Your task to perform on an android device: Open Chrome and go to settings Image 0: 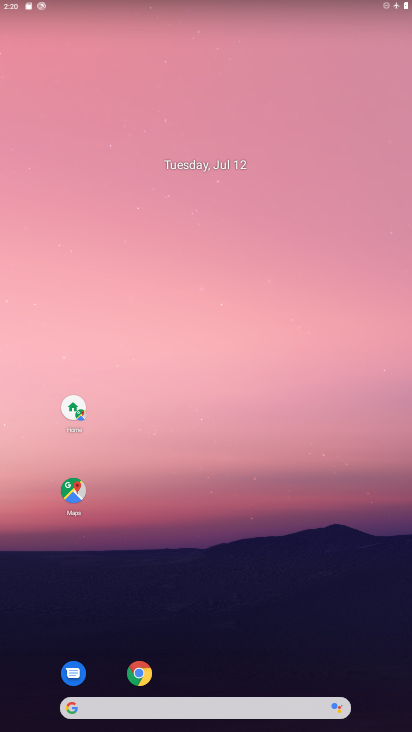
Step 0: drag from (216, 639) to (221, 387)
Your task to perform on an android device: Open Chrome and go to settings Image 1: 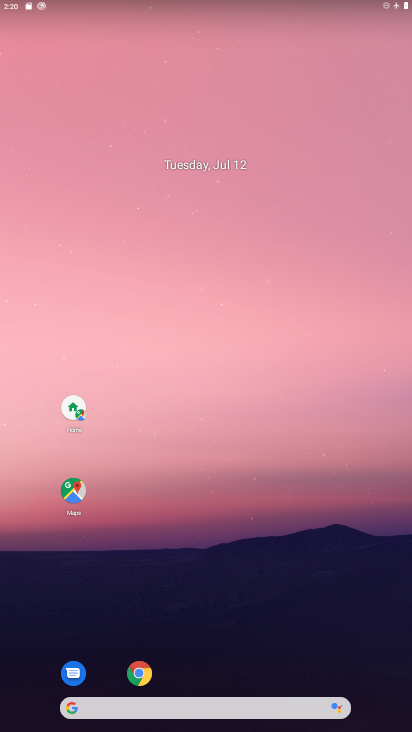
Step 1: drag from (210, 654) to (248, 245)
Your task to perform on an android device: Open Chrome and go to settings Image 2: 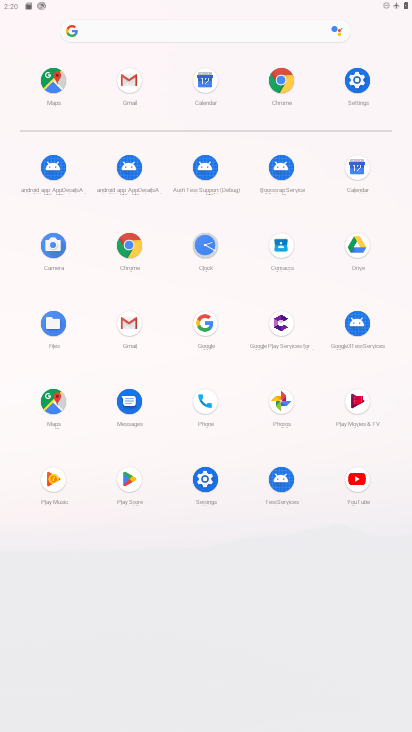
Step 2: click (284, 82)
Your task to perform on an android device: Open Chrome and go to settings Image 3: 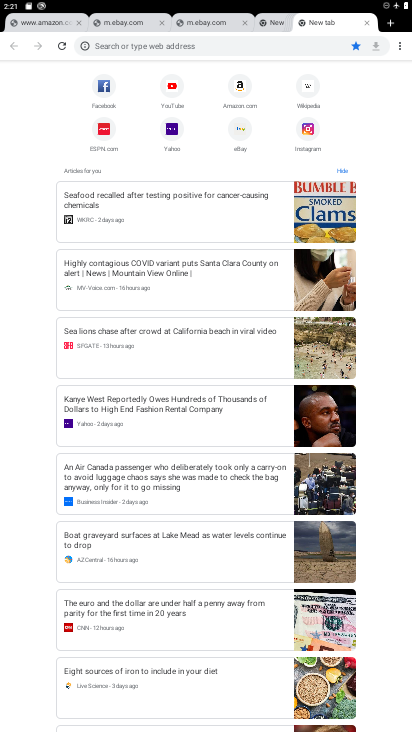
Step 3: click (399, 55)
Your task to perform on an android device: Open Chrome and go to settings Image 4: 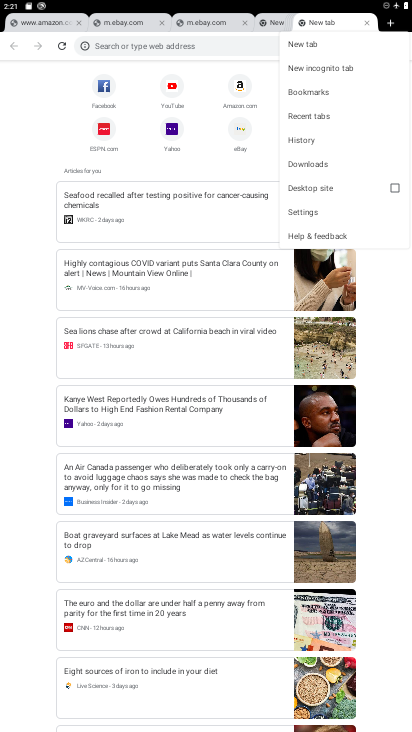
Step 4: click (318, 210)
Your task to perform on an android device: Open Chrome and go to settings Image 5: 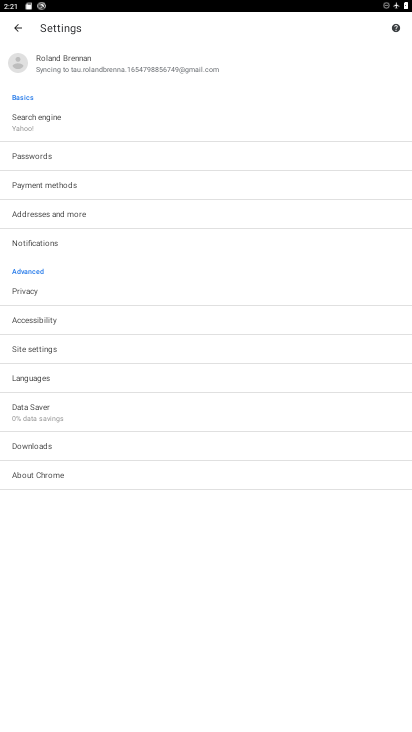
Step 5: task complete